Your task to perform on an android device: Open the calendar and show me this week's events? Image 0: 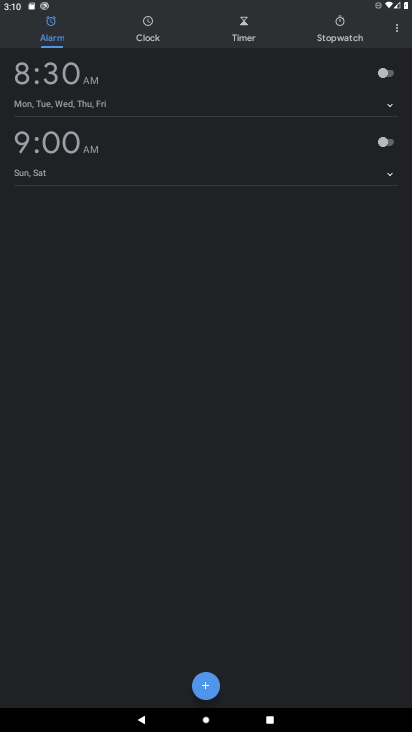
Step 0: press home button
Your task to perform on an android device: Open the calendar and show me this week's events? Image 1: 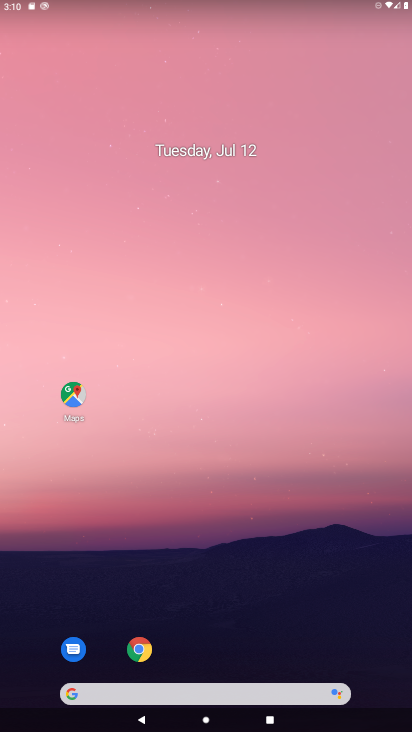
Step 1: drag from (288, 627) to (303, 197)
Your task to perform on an android device: Open the calendar and show me this week's events? Image 2: 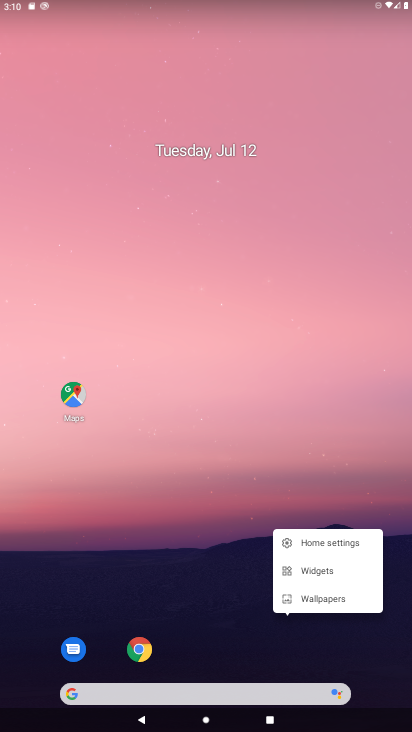
Step 2: click (303, 197)
Your task to perform on an android device: Open the calendar and show me this week's events? Image 3: 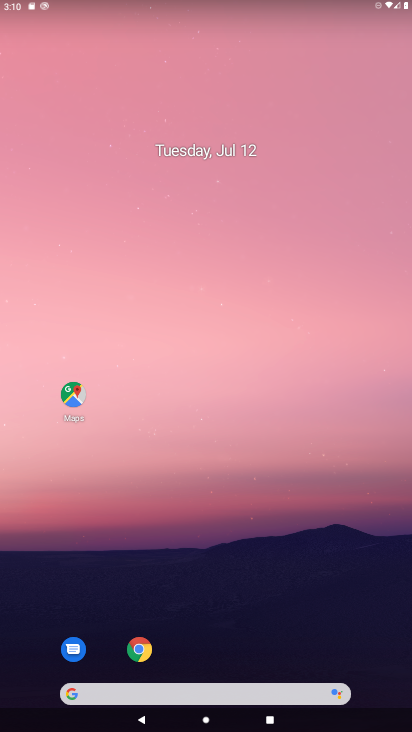
Step 3: drag from (228, 606) to (186, 13)
Your task to perform on an android device: Open the calendar and show me this week's events? Image 4: 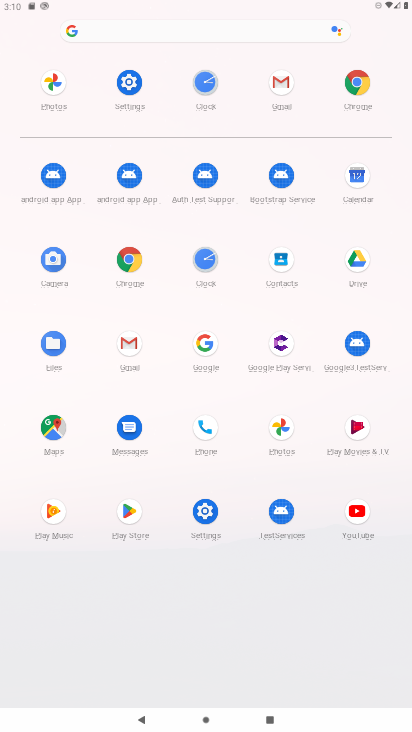
Step 4: click (121, 103)
Your task to perform on an android device: Open the calendar and show me this week's events? Image 5: 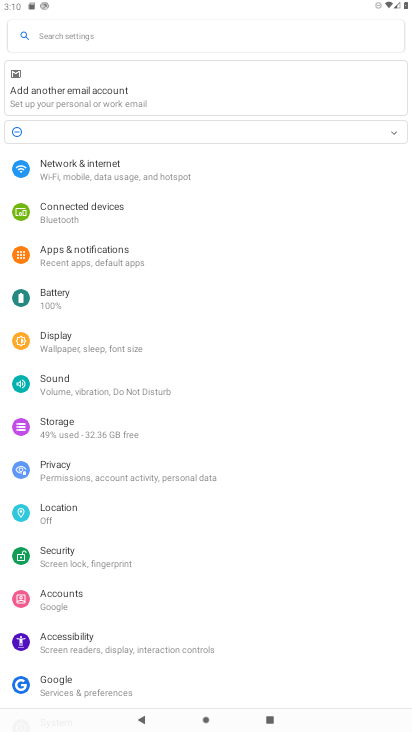
Step 5: press home button
Your task to perform on an android device: Open the calendar and show me this week's events? Image 6: 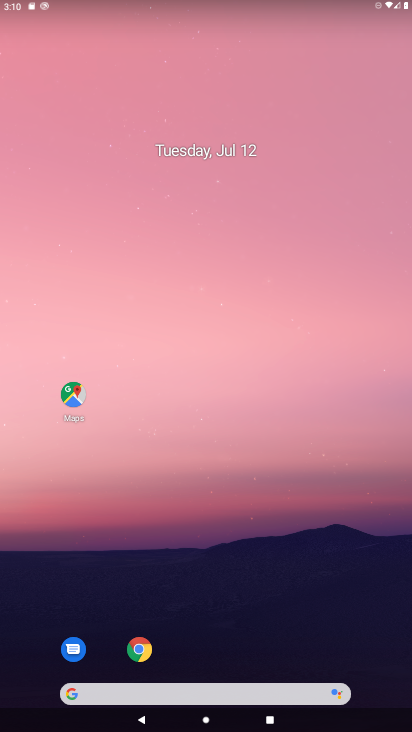
Step 6: drag from (268, 643) to (183, 201)
Your task to perform on an android device: Open the calendar and show me this week's events? Image 7: 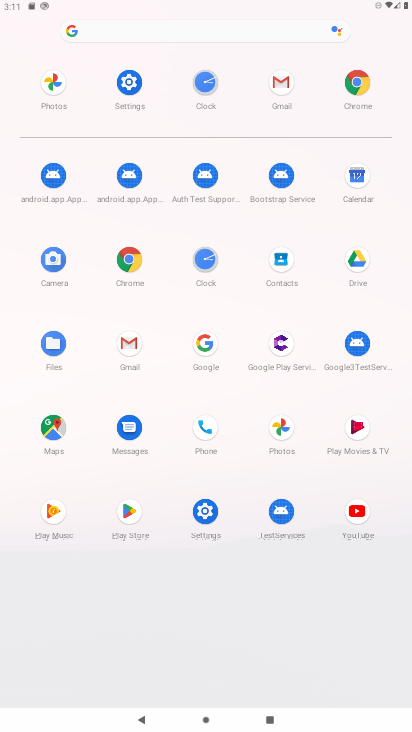
Step 7: click (196, 98)
Your task to perform on an android device: Open the calendar and show me this week's events? Image 8: 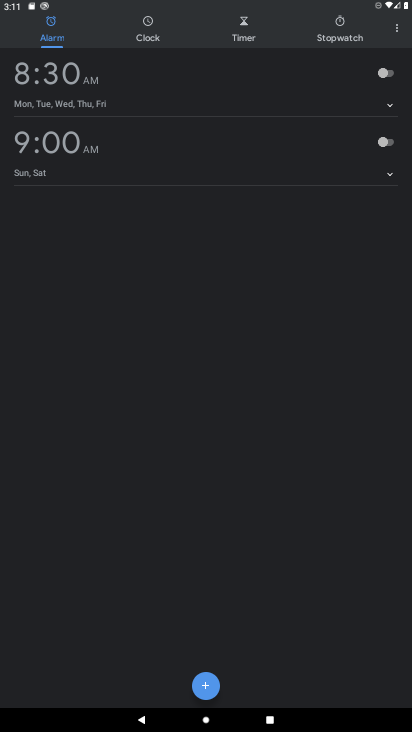
Step 8: press home button
Your task to perform on an android device: Open the calendar and show me this week's events? Image 9: 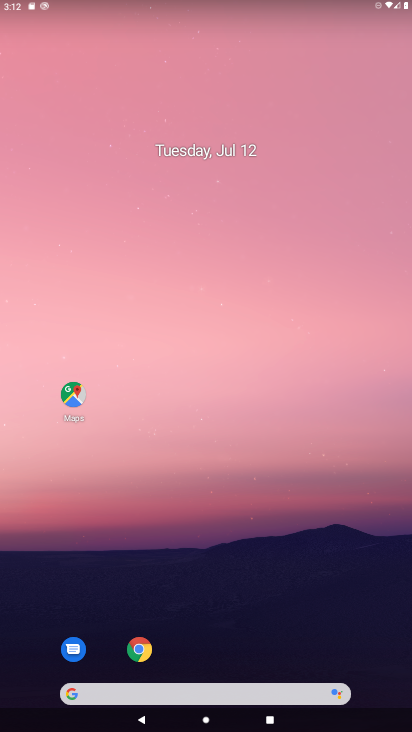
Step 9: drag from (223, 609) to (164, 226)
Your task to perform on an android device: Open the calendar and show me this week's events? Image 10: 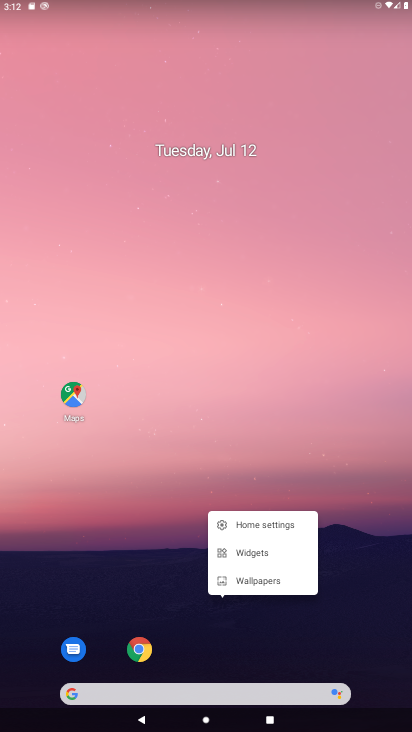
Step 10: click (187, 387)
Your task to perform on an android device: Open the calendar and show me this week's events? Image 11: 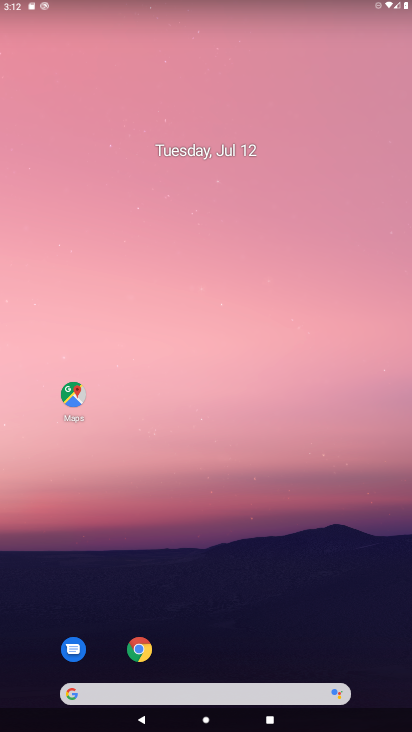
Step 11: drag from (282, 658) to (167, 138)
Your task to perform on an android device: Open the calendar and show me this week's events? Image 12: 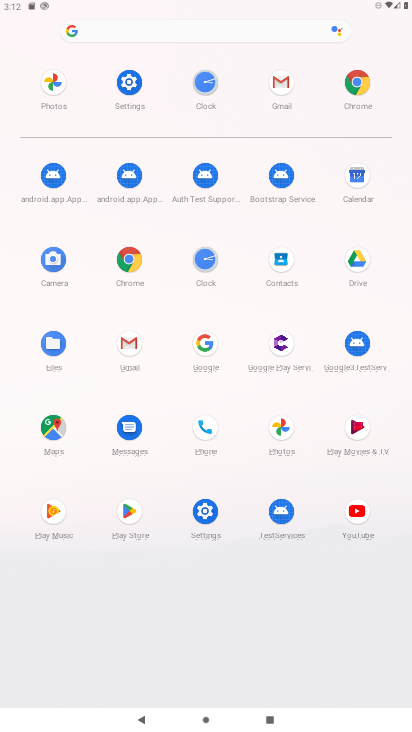
Step 12: click (349, 188)
Your task to perform on an android device: Open the calendar and show me this week's events? Image 13: 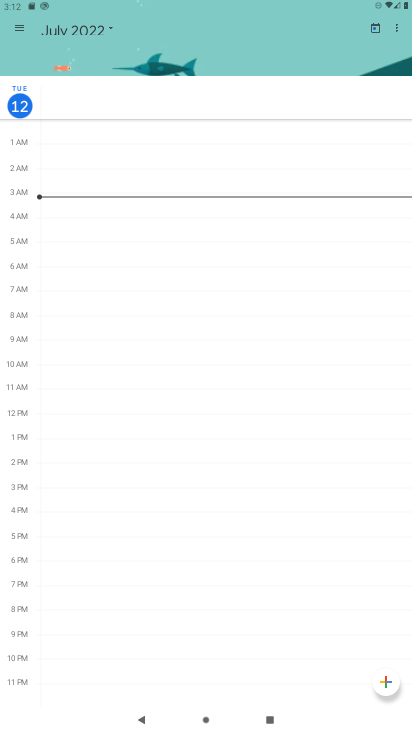
Step 13: task complete